Your task to perform on an android device: Clear the shopping cart on ebay.com. Add "acer nitro" to the cart on ebay.com, then select checkout. Image 0: 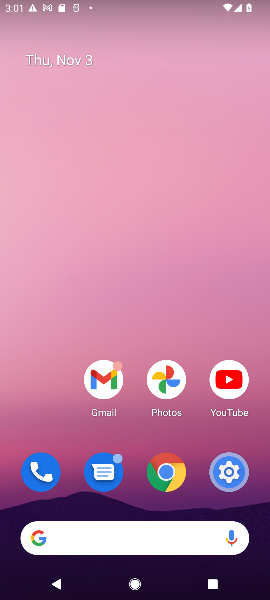
Step 0: click (139, 545)
Your task to perform on an android device: Clear the shopping cart on ebay.com. Add "acer nitro" to the cart on ebay.com, then select checkout. Image 1: 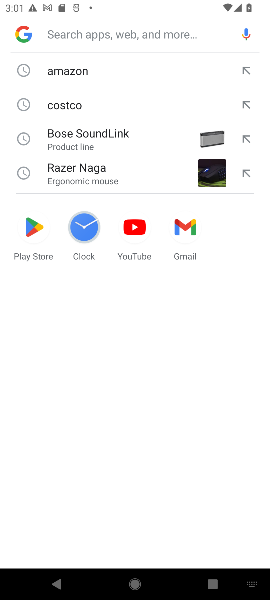
Step 1: type "ebay.com"
Your task to perform on an android device: Clear the shopping cart on ebay.com. Add "acer nitro" to the cart on ebay.com, then select checkout. Image 2: 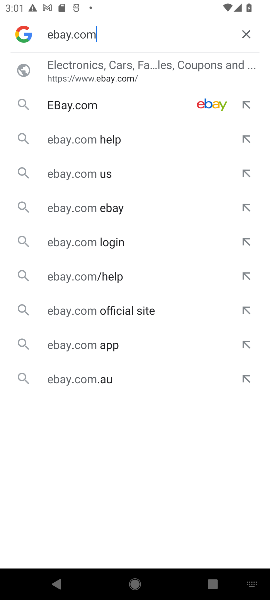
Step 2: click (164, 105)
Your task to perform on an android device: Clear the shopping cart on ebay.com. Add "acer nitro" to the cart on ebay.com, then select checkout. Image 3: 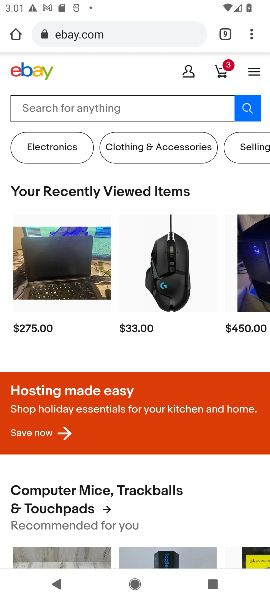
Step 3: click (160, 105)
Your task to perform on an android device: Clear the shopping cart on ebay.com. Add "acer nitro" to the cart on ebay.com, then select checkout. Image 4: 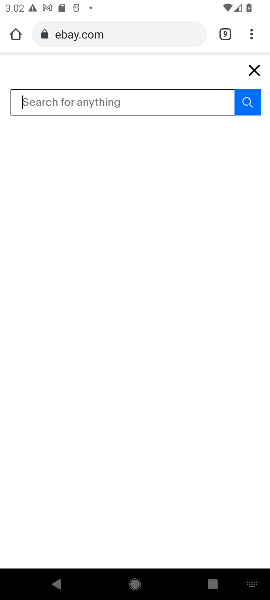
Step 4: type "acer nitro"
Your task to perform on an android device: Clear the shopping cart on ebay.com. Add "acer nitro" to the cart on ebay.com, then select checkout. Image 5: 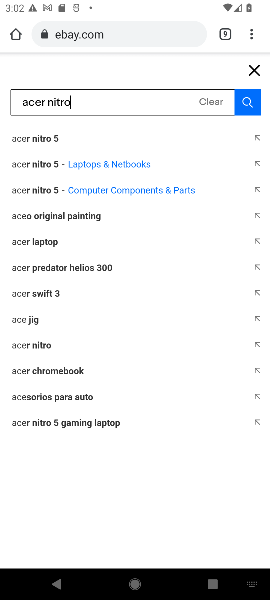
Step 5: click (221, 132)
Your task to perform on an android device: Clear the shopping cart on ebay.com. Add "acer nitro" to the cart on ebay.com, then select checkout. Image 6: 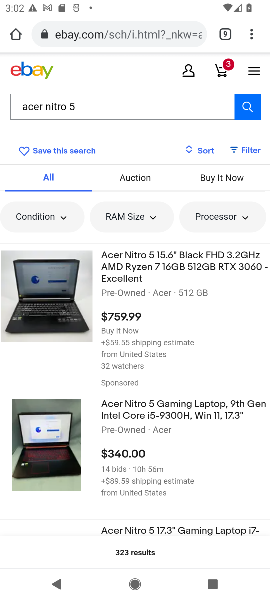
Step 6: click (135, 279)
Your task to perform on an android device: Clear the shopping cart on ebay.com. Add "acer nitro" to the cart on ebay.com, then select checkout. Image 7: 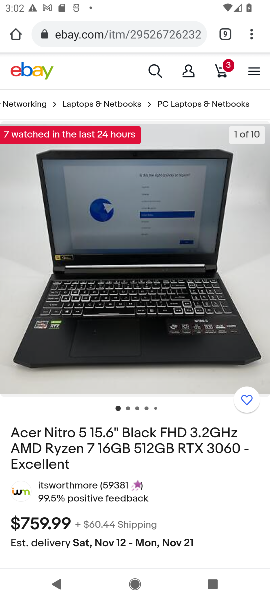
Step 7: drag from (222, 515) to (191, 233)
Your task to perform on an android device: Clear the shopping cart on ebay.com. Add "acer nitro" to the cart on ebay.com, then select checkout. Image 8: 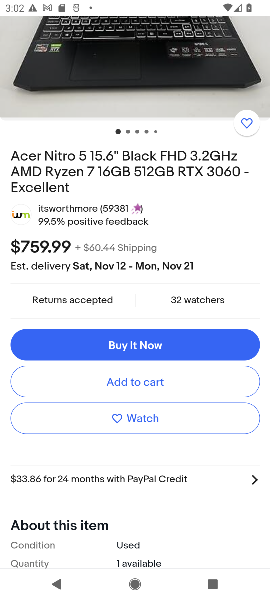
Step 8: click (157, 383)
Your task to perform on an android device: Clear the shopping cart on ebay.com. Add "acer nitro" to the cart on ebay.com, then select checkout. Image 9: 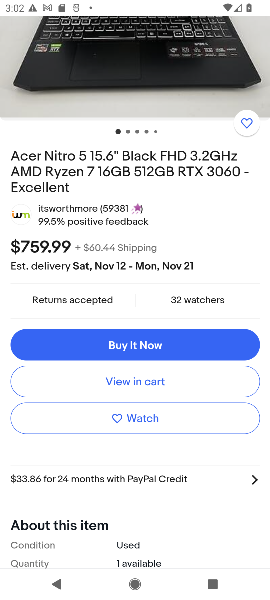
Step 9: click (105, 378)
Your task to perform on an android device: Clear the shopping cart on ebay.com. Add "acer nitro" to the cart on ebay.com, then select checkout. Image 10: 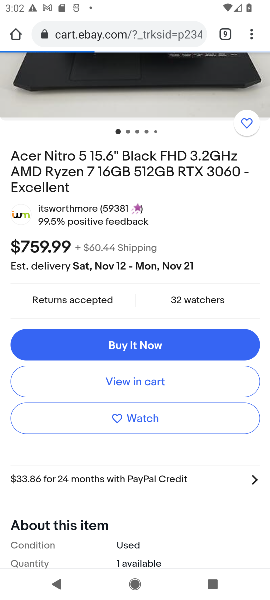
Step 10: task complete